Your task to perform on an android device: all mails in gmail Image 0: 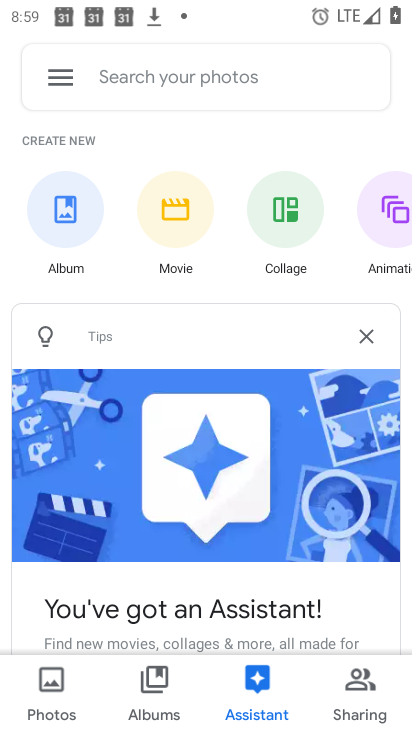
Step 0: press home button
Your task to perform on an android device: all mails in gmail Image 1: 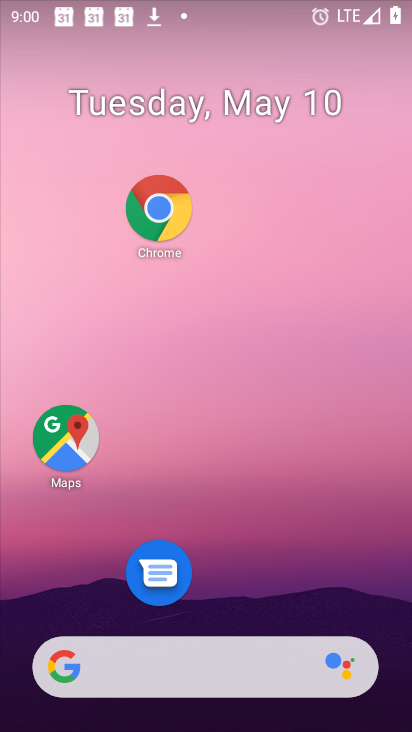
Step 1: drag from (279, 703) to (376, 292)
Your task to perform on an android device: all mails in gmail Image 2: 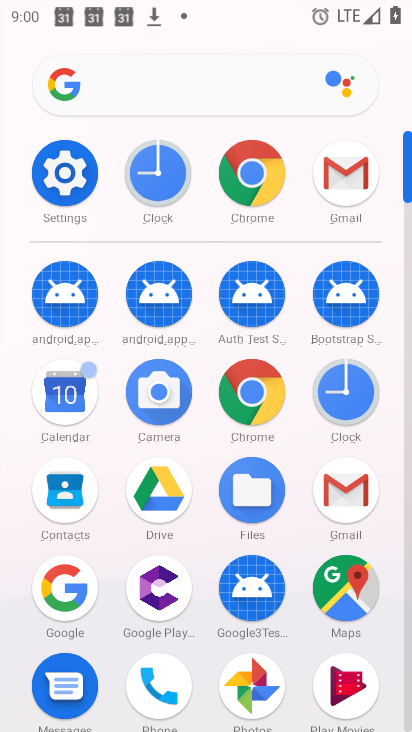
Step 2: click (327, 200)
Your task to perform on an android device: all mails in gmail Image 3: 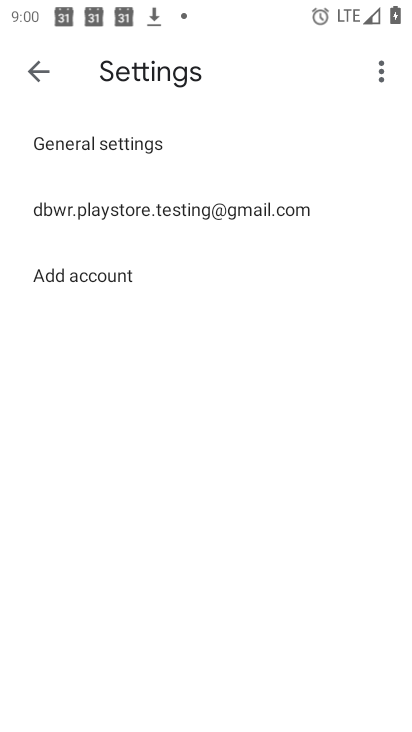
Step 3: click (35, 82)
Your task to perform on an android device: all mails in gmail Image 4: 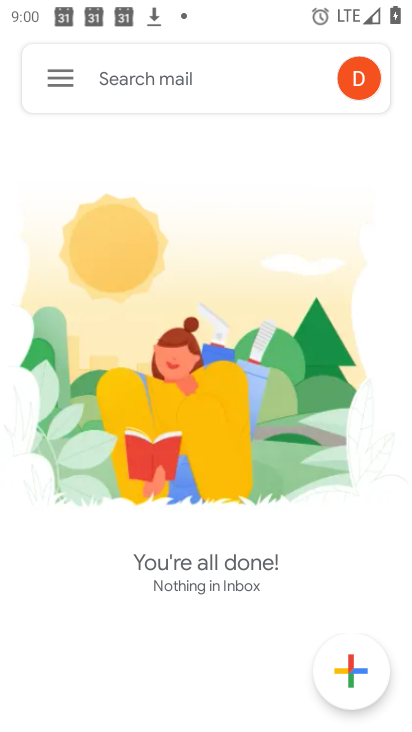
Step 4: click (48, 85)
Your task to perform on an android device: all mails in gmail Image 5: 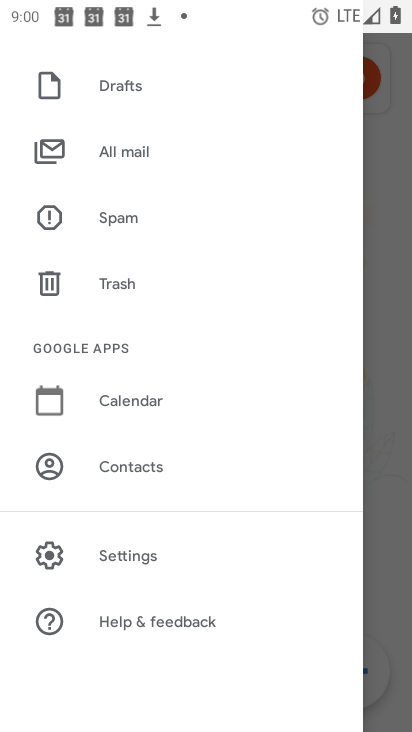
Step 5: click (143, 150)
Your task to perform on an android device: all mails in gmail Image 6: 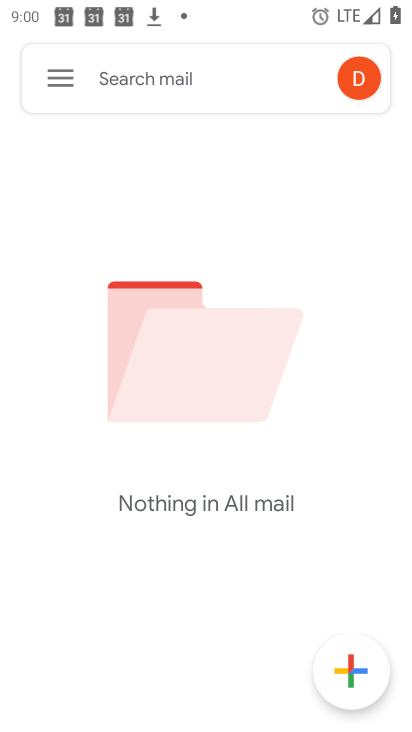
Step 6: task complete